Your task to perform on an android device: Play the last video I watched on Youtube Image 0: 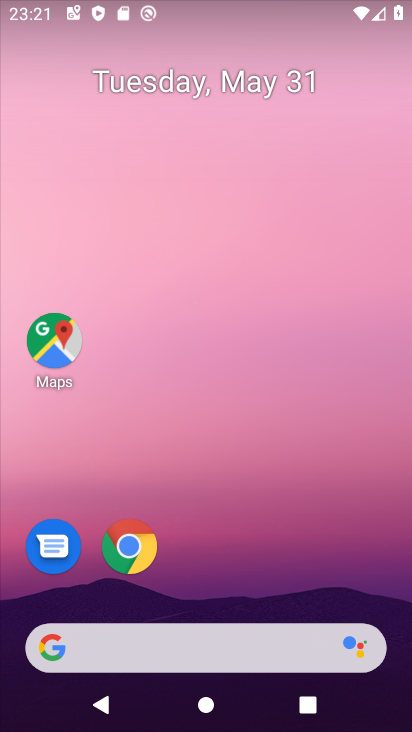
Step 0: drag from (244, 598) to (206, 177)
Your task to perform on an android device: Play the last video I watched on Youtube Image 1: 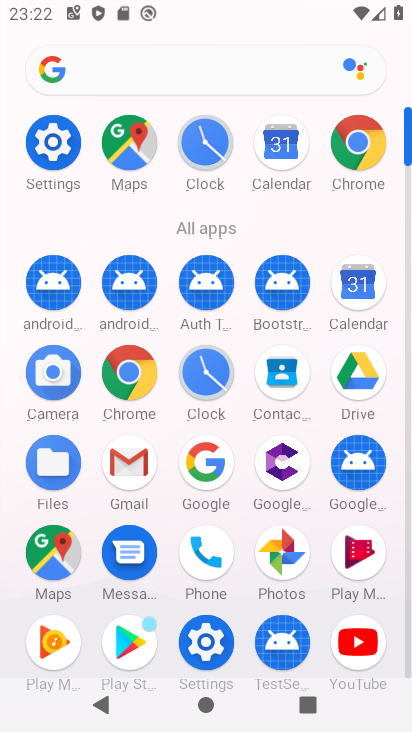
Step 1: click (368, 665)
Your task to perform on an android device: Play the last video I watched on Youtube Image 2: 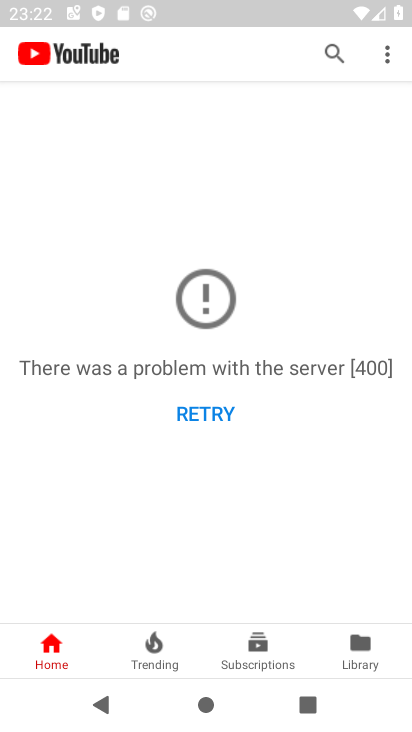
Step 2: click (368, 665)
Your task to perform on an android device: Play the last video I watched on Youtube Image 3: 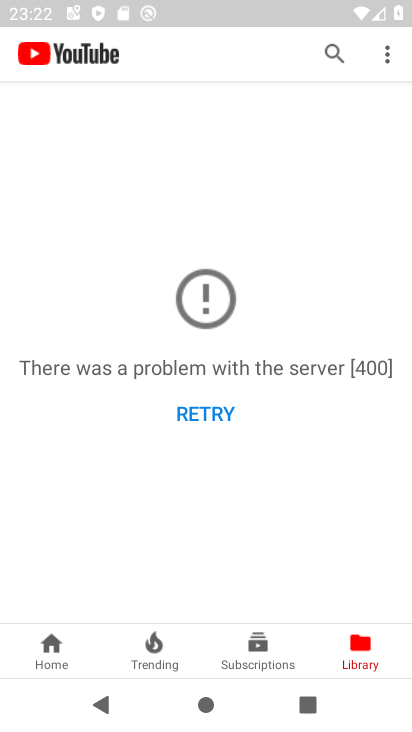
Step 3: task complete